Your task to perform on an android device: Open the calendar Image 0: 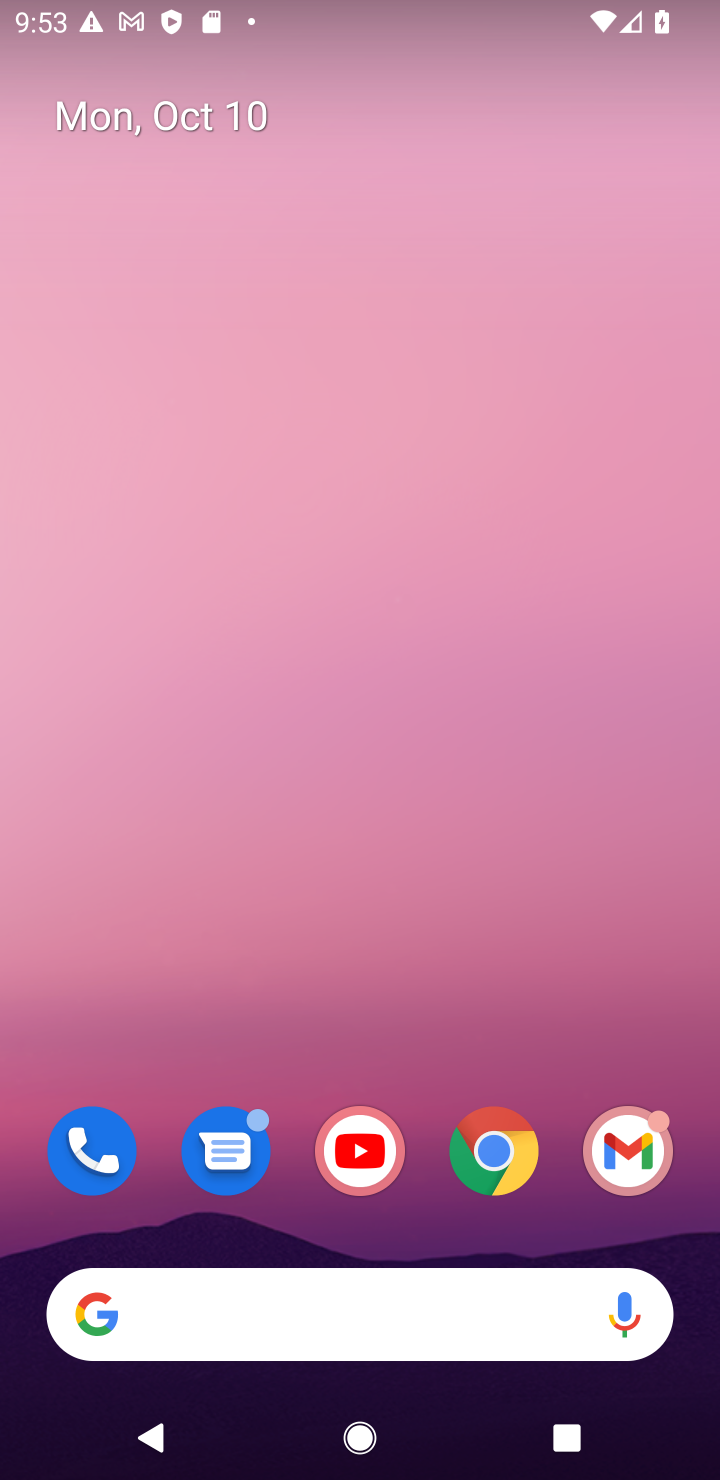
Step 0: click (209, 134)
Your task to perform on an android device: Open the calendar Image 1: 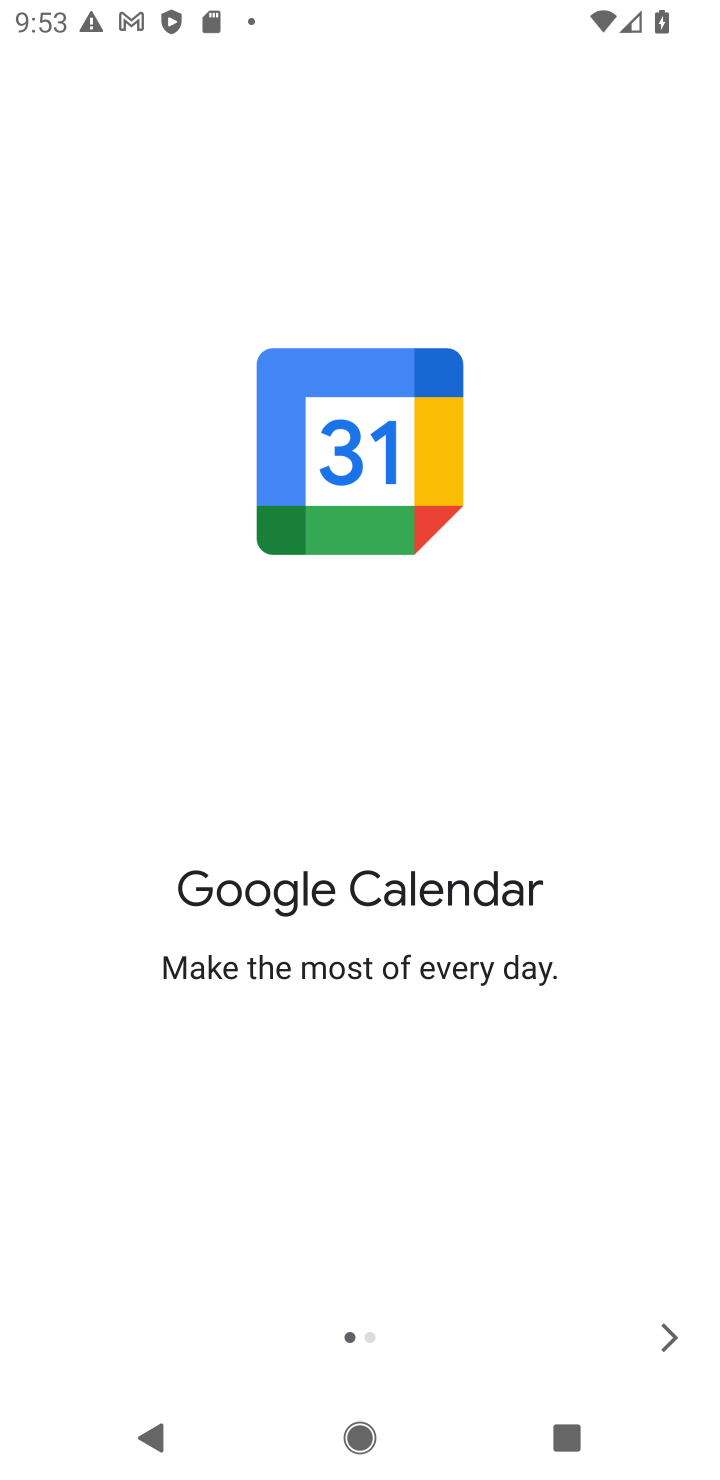
Step 1: click (661, 1343)
Your task to perform on an android device: Open the calendar Image 2: 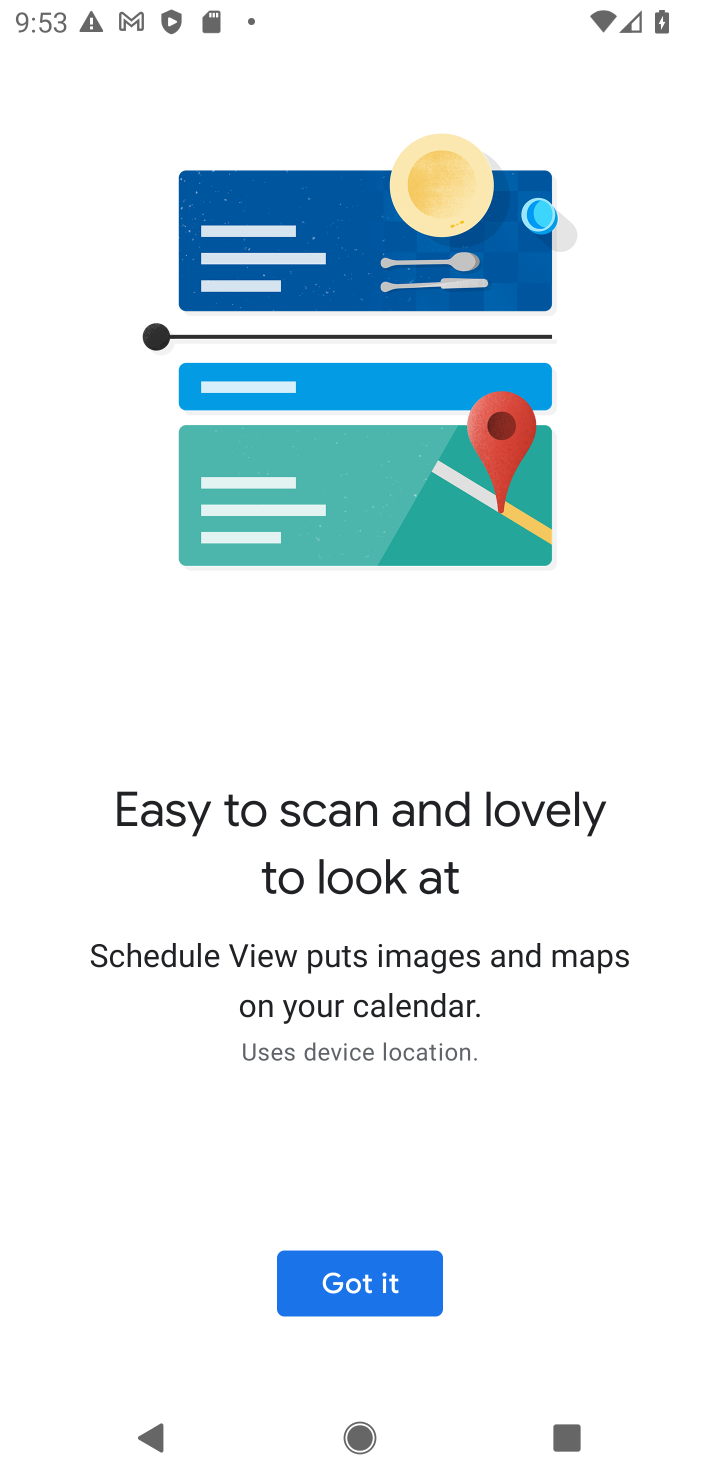
Step 2: click (401, 1305)
Your task to perform on an android device: Open the calendar Image 3: 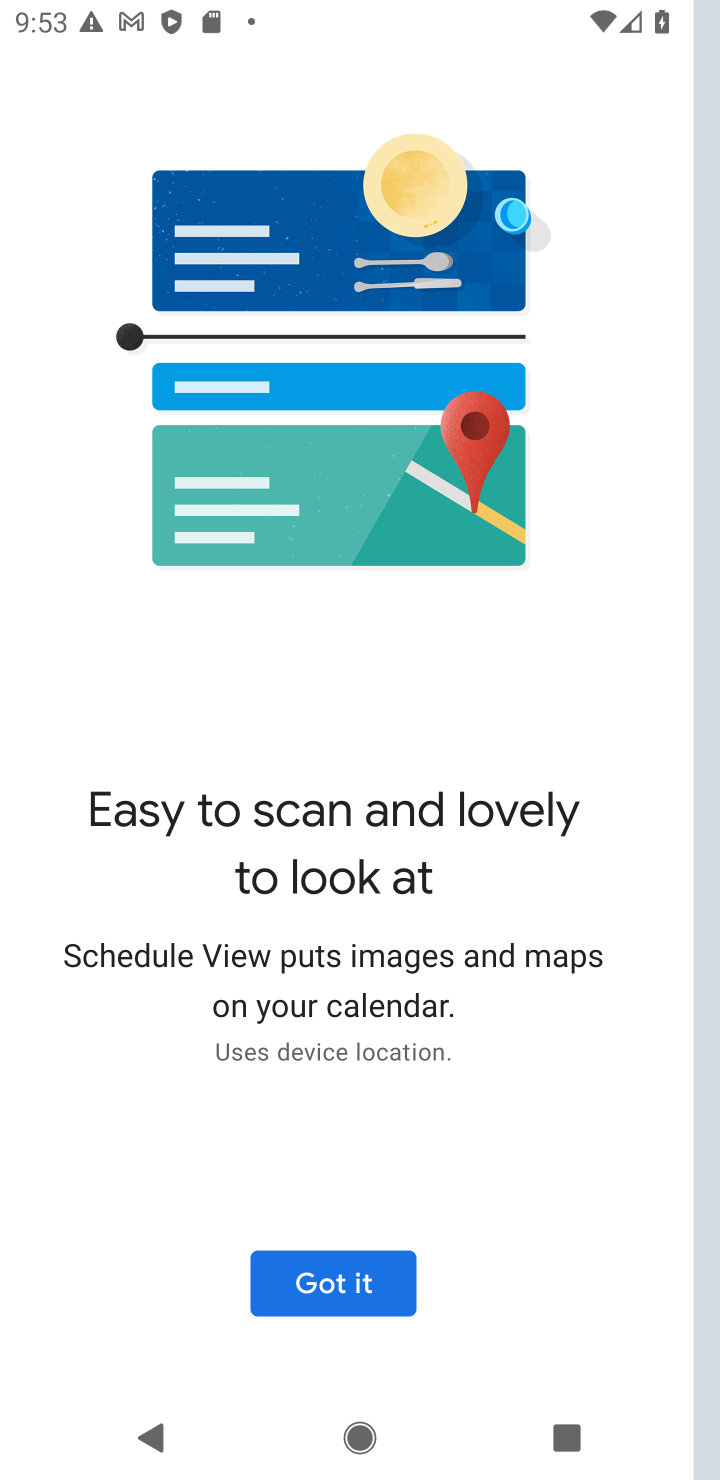
Step 3: click (401, 1305)
Your task to perform on an android device: Open the calendar Image 4: 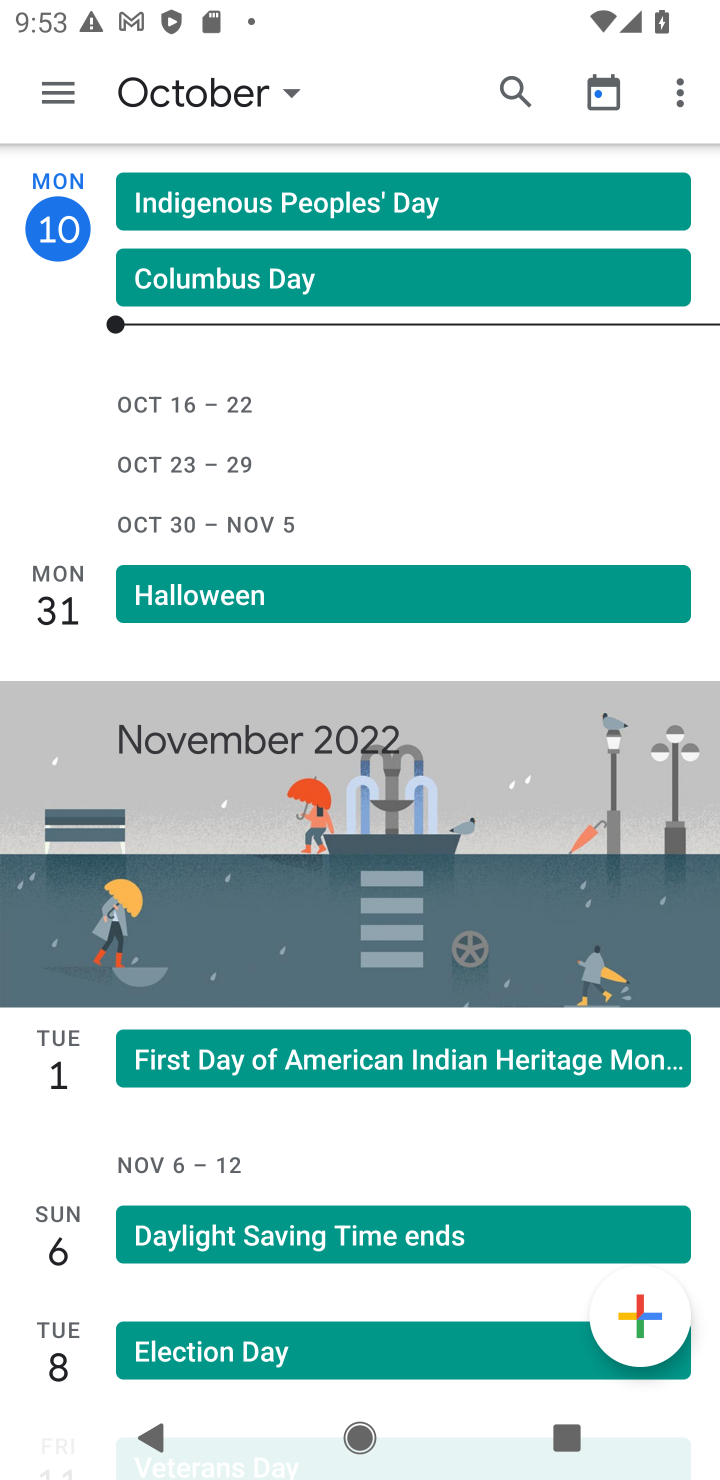
Step 4: task complete